Your task to perform on an android device: Open settings Image 0: 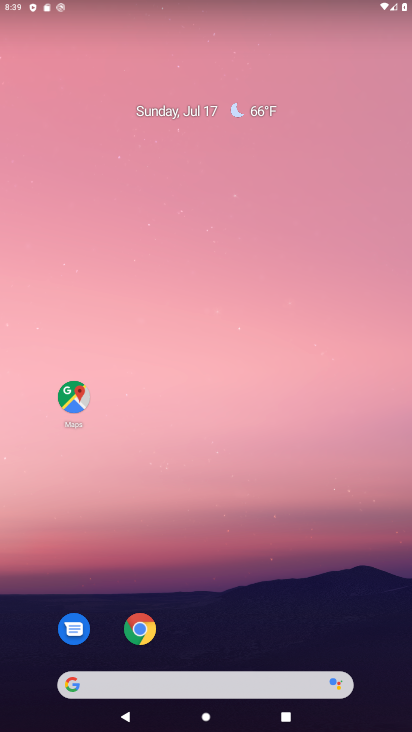
Step 0: drag from (220, 654) to (243, 6)
Your task to perform on an android device: Open settings Image 1: 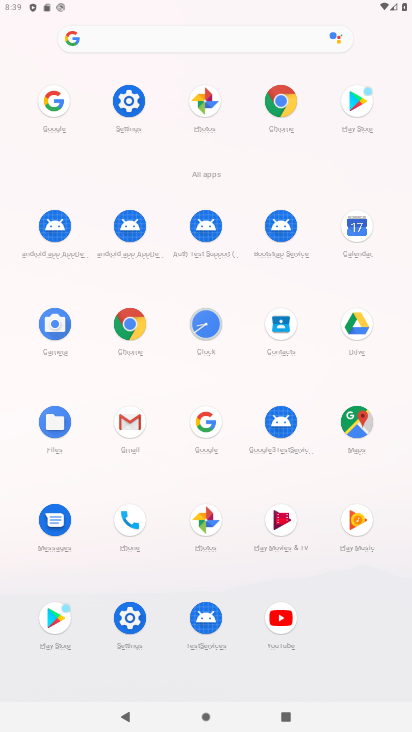
Step 1: click (124, 93)
Your task to perform on an android device: Open settings Image 2: 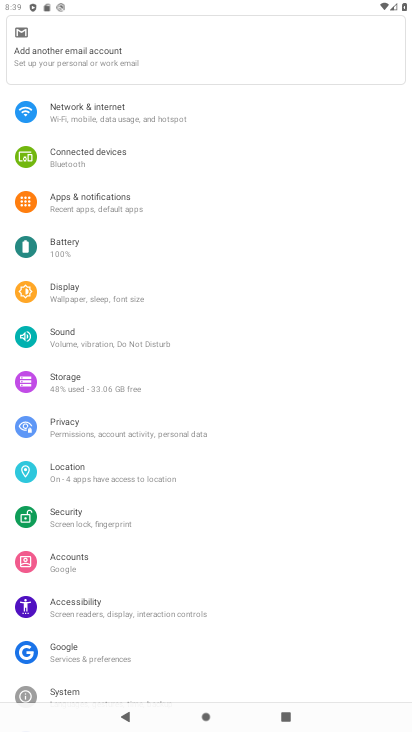
Step 2: task complete